Your task to perform on an android device: uninstall "Google Duo" Image 0: 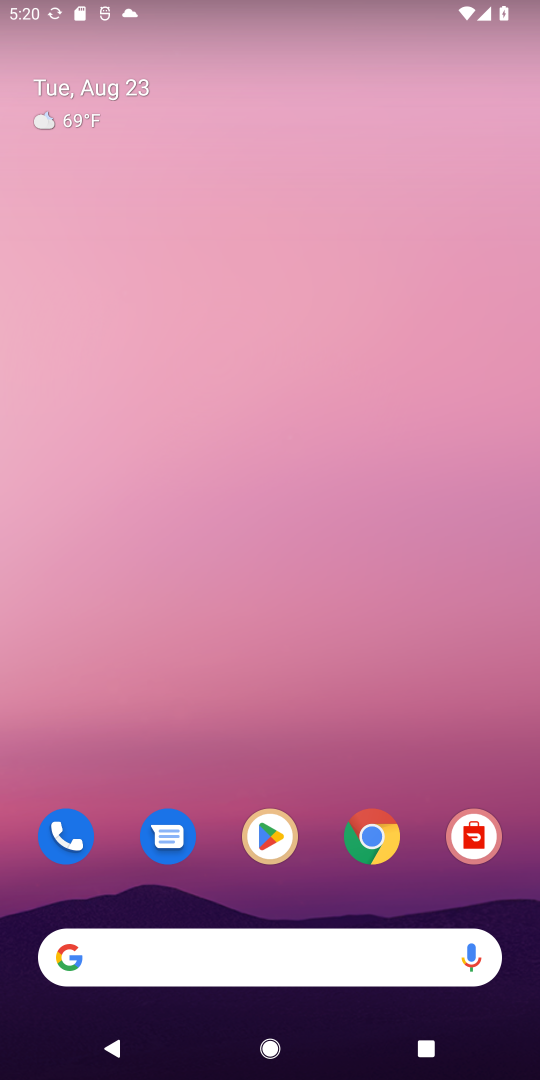
Step 0: click (273, 836)
Your task to perform on an android device: uninstall "Google Duo" Image 1: 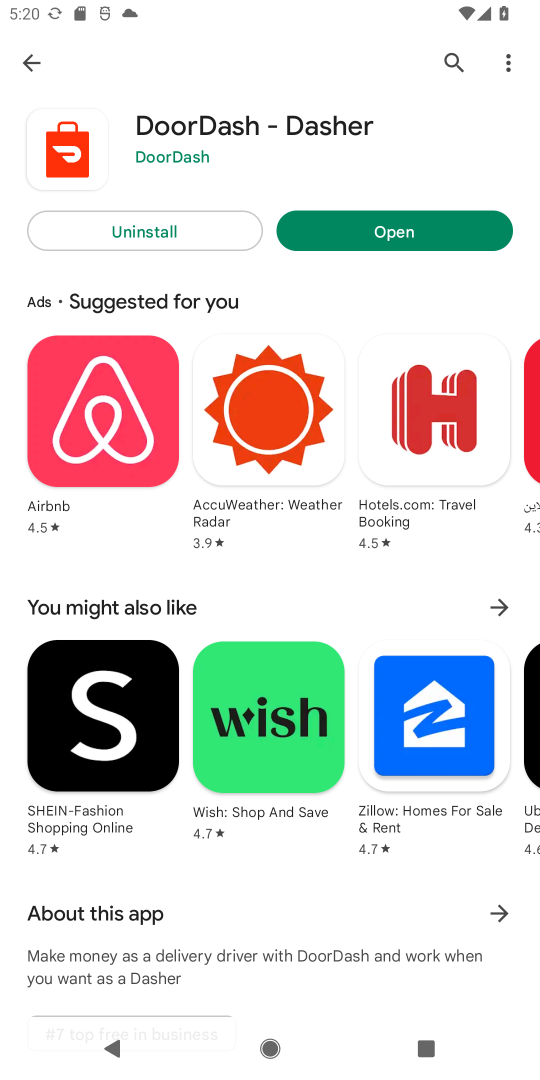
Step 1: click (447, 51)
Your task to perform on an android device: uninstall "Google Duo" Image 2: 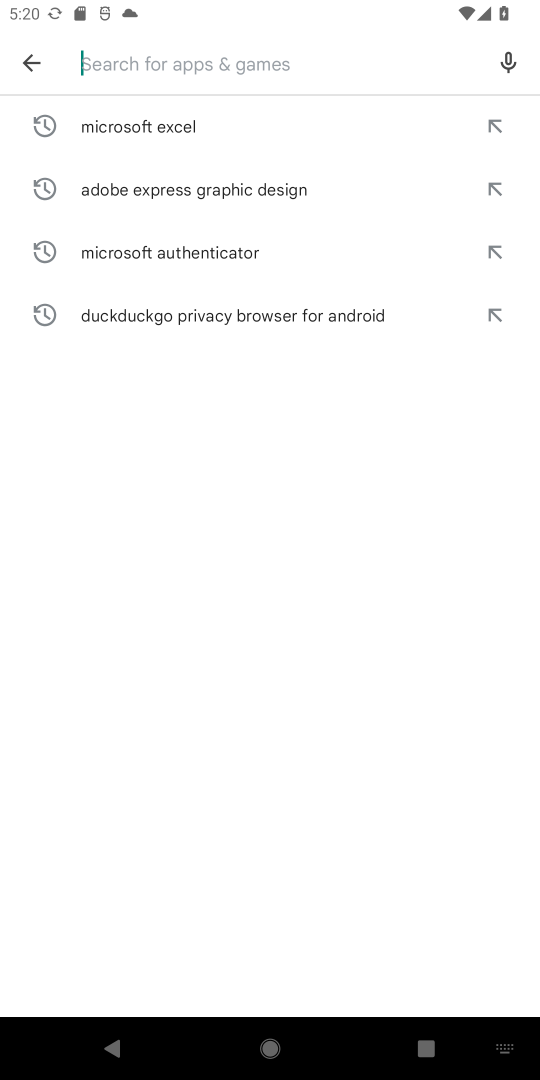
Step 2: type "Google Duo"
Your task to perform on an android device: uninstall "Google Duo" Image 3: 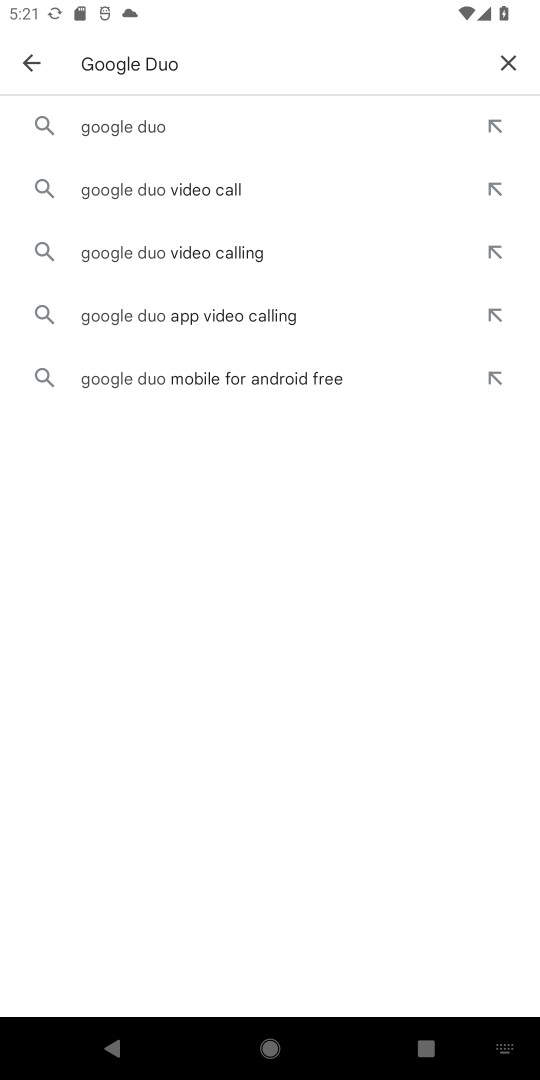
Step 3: click (112, 126)
Your task to perform on an android device: uninstall "Google Duo" Image 4: 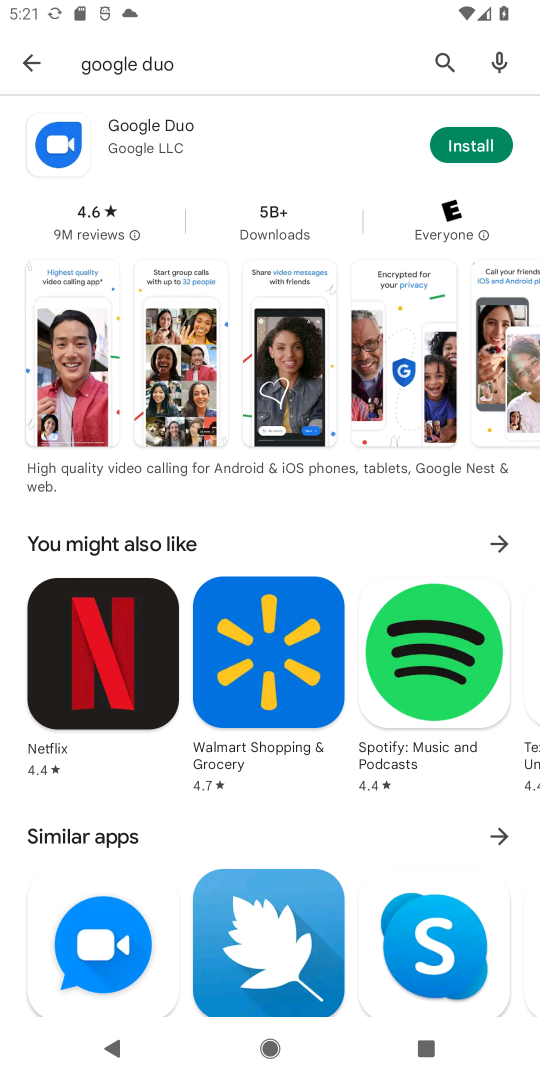
Step 4: task complete